Your task to perform on an android device: toggle javascript in the chrome app Image 0: 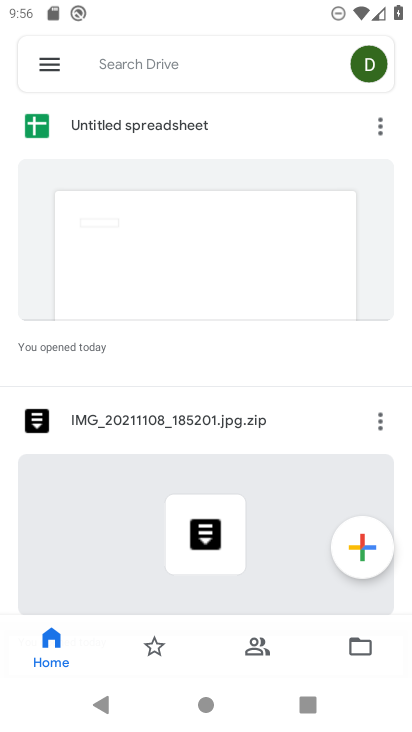
Step 0: press home button
Your task to perform on an android device: toggle javascript in the chrome app Image 1: 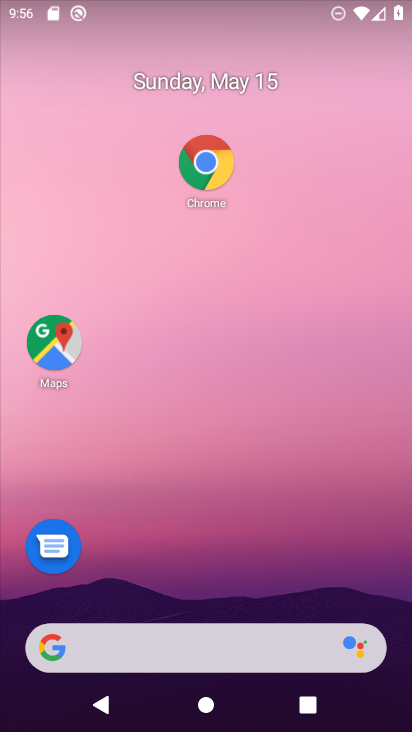
Step 1: drag from (233, 527) to (272, 238)
Your task to perform on an android device: toggle javascript in the chrome app Image 2: 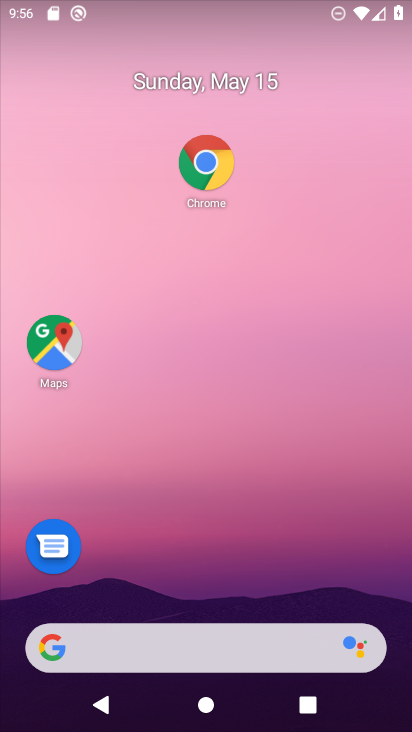
Step 2: drag from (206, 572) to (295, 209)
Your task to perform on an android device: toggle javascript in the chrome app Image 3: 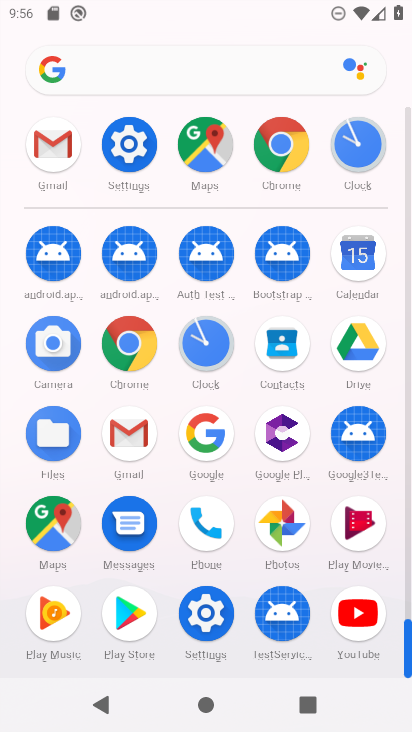
Step 3: click (279, 132)
Your task to perform on an android device: toggle javascript in the chrome app Image 4: 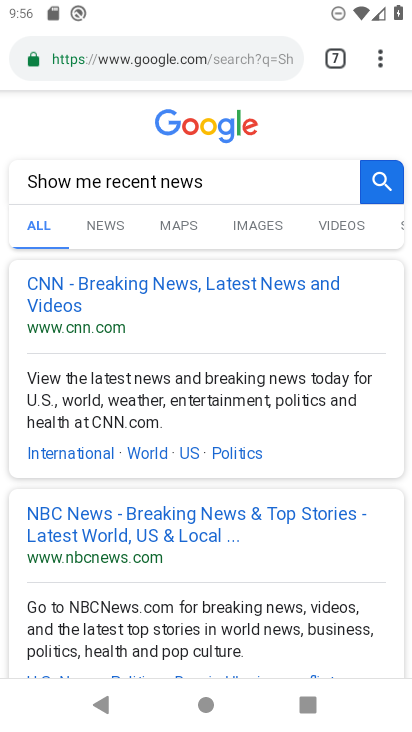
Step 4: click (369, 57)
Your task to perform on an android device: toggle javascript in the chrome app Image 5: 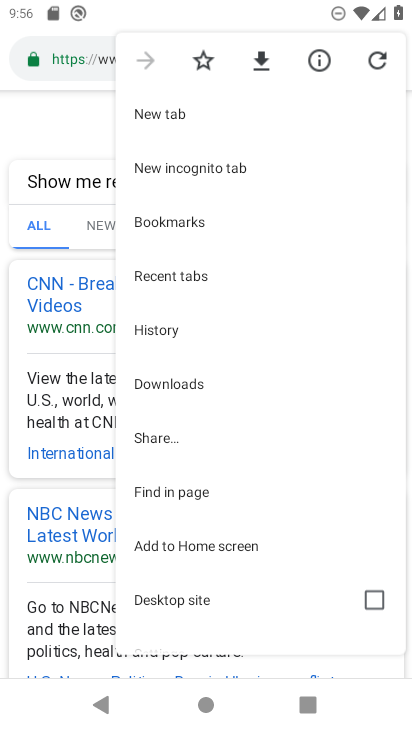
Step 5: drag from (215, 572) to (275, 109)
Your task to perform on an android device: toggle javascript in the chrome app Image 6: 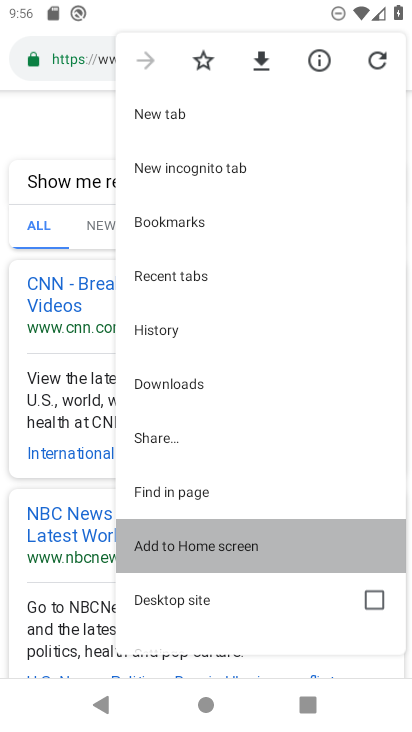
Step 6: drag from (267, 468) to (272, 214)
Your task to perform on an android device: toggle javascript in the chrome app Image 7: 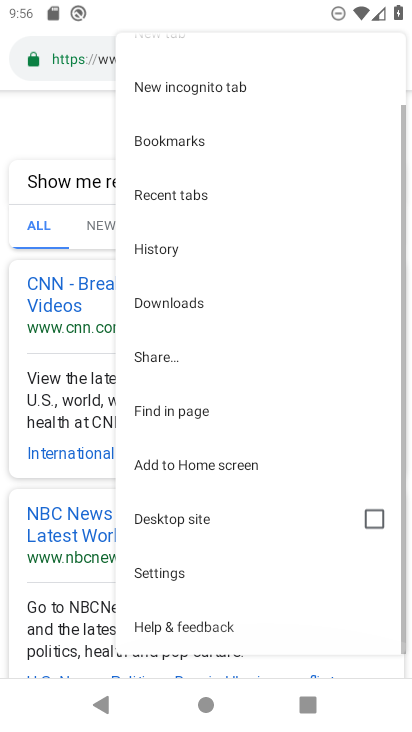
Step 7: drag from (212, 452) to (256, 148)
Your task to perform on an android device: toggle javascript in the chrome app Image 8: 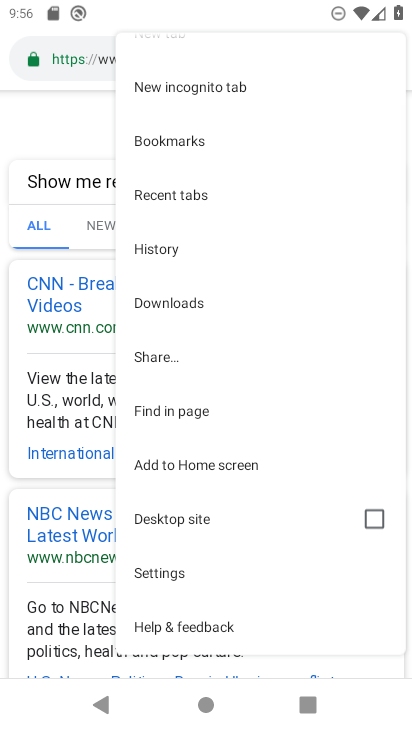
Step 8: click (168, 569)
Your task to perform on an android device: toggle javascript in the chrome app Image 9: 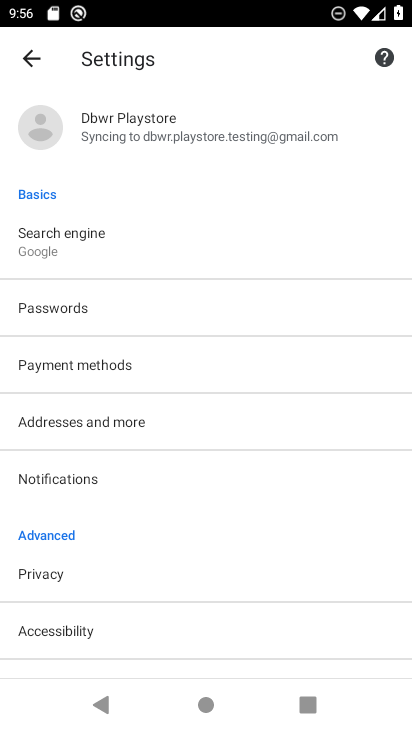
Step 9: drag from (125, 571) to (158, 381)
Your task to perform on an android device: toggle javascript in the chrome app Image 10: 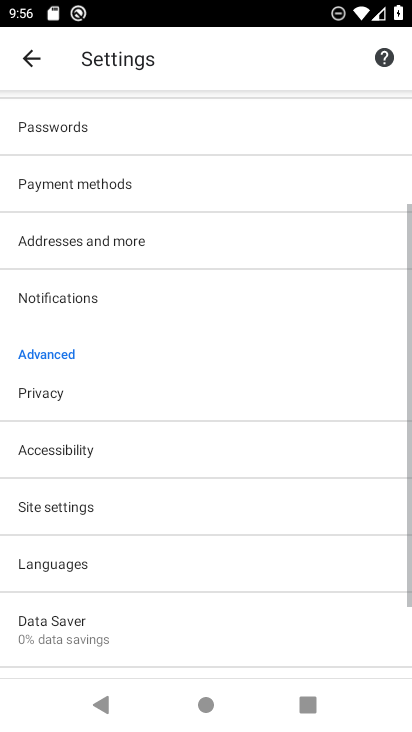
Step 10: drag from (71, 706) to (104, 415)
Your task to perform on an android device: toggle javascript in the chrome app Image 11: 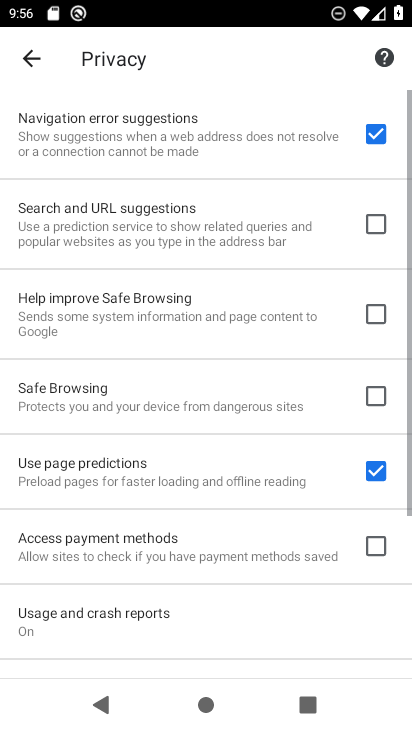
Step 11: drag from (132, 601) to (157, 350)
Your task to perform on an android device: toggle javascript in the chrome app Image 12: 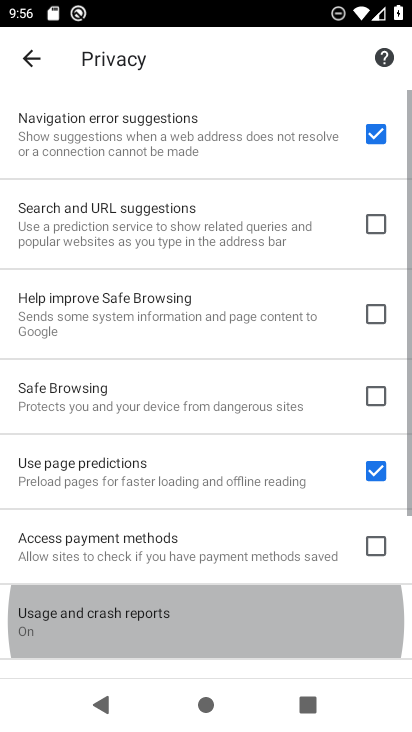
Step 12: drag from (158, 560) to (210, 303)
Your task to perform on an android device: toggle javascript in the chrome app Image 13: 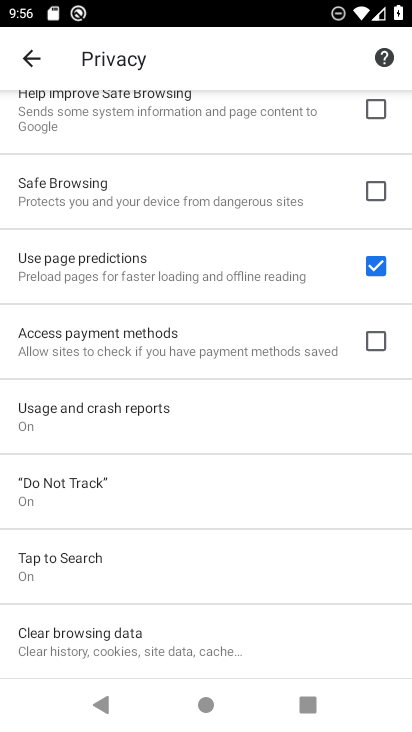
Step 13: press back button
Your task to perform on an android device: toggle javascript in the chrome app Image 14: 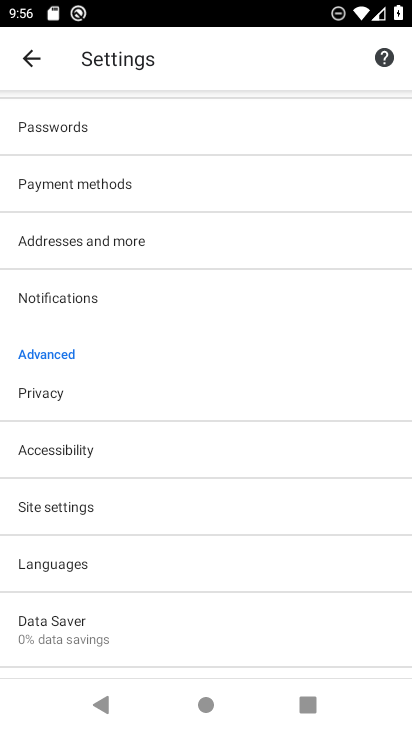
Step 14: click (108, 503)
Your task to perform on an android device: toggle javascript in the chrome app Image 15: 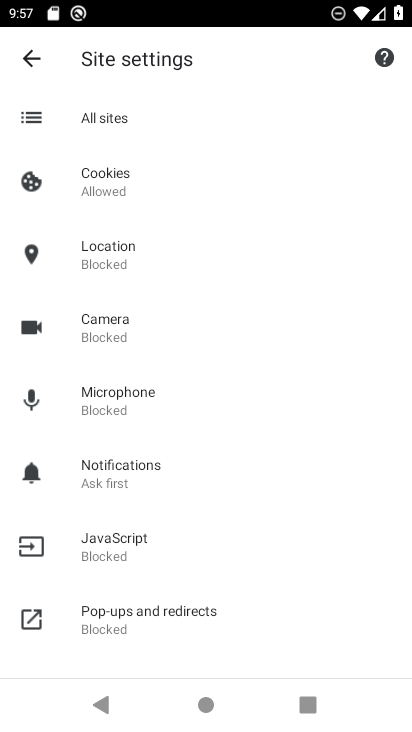
Step 15: click (121, 557)
Your task to perform on an android device: toggle javascript in the chrome app Image 16: 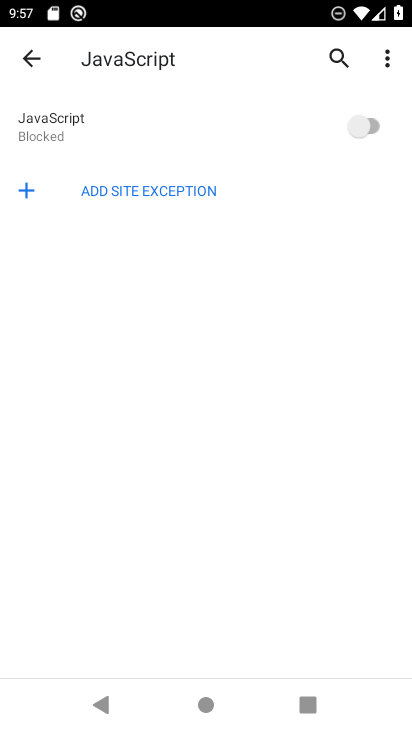
Step 16: click (370, 127)
Your task to perform on an android device: toggle javascript in the chrome app Image 17: 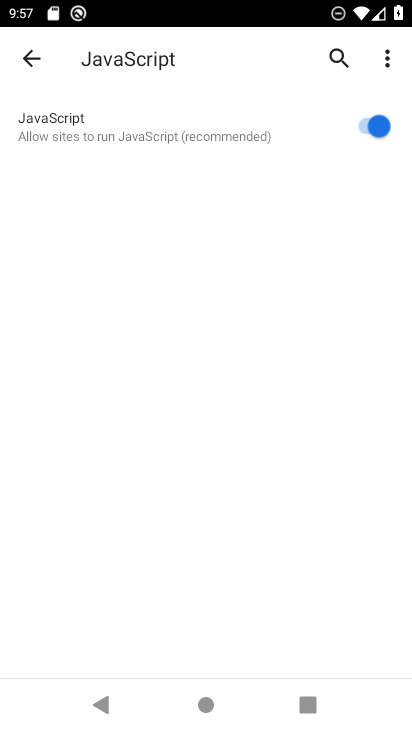
Step 17: task complete